Your task to perform on an android device: turn notification dots on Image 0: 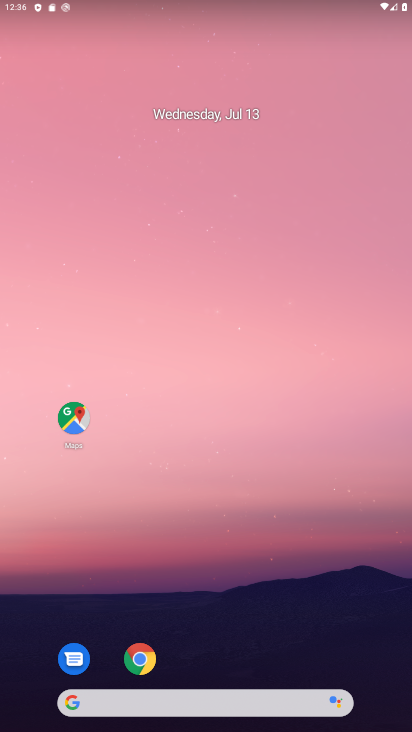
Step 0: press home button
Your task to perform on an android device: turn notification dots on Image 1: 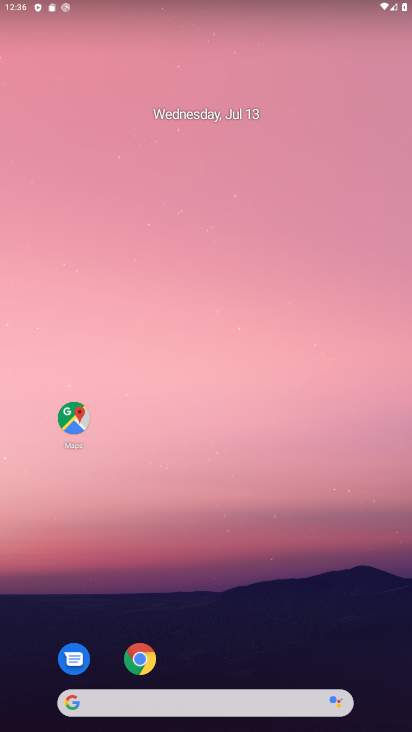
Step 1: drag from (232, 620) to (409, 160)
Your task to perform on an android device: turn notification dots on Image 2: 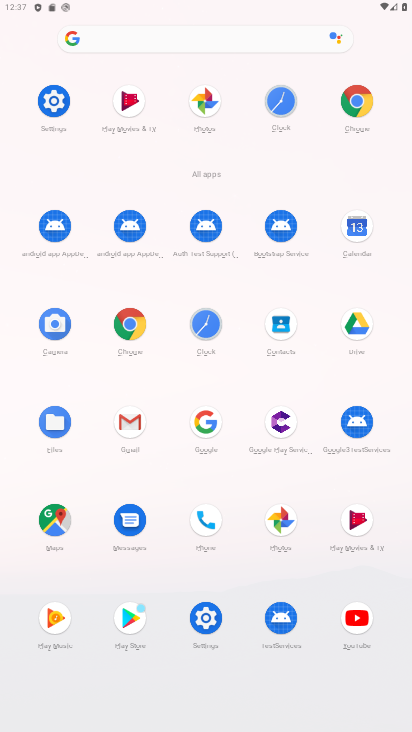
Step 2: click (196, 639)
Your task to perform on an android device: turn notification dots on Image 3: 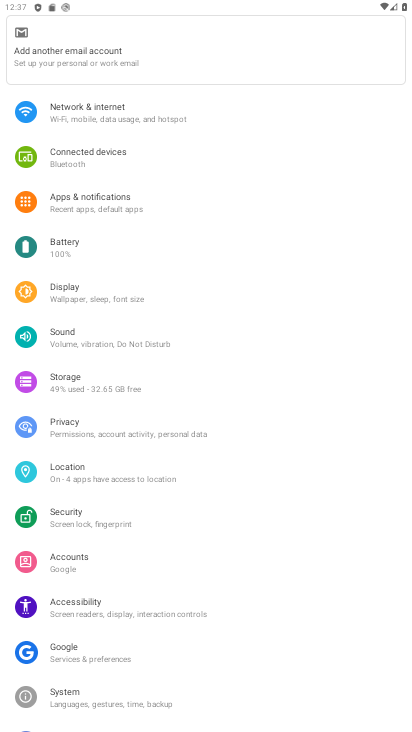
Step 3: click (150, 212)
Your task to perform on an android device: turn notification dots on Image 4: 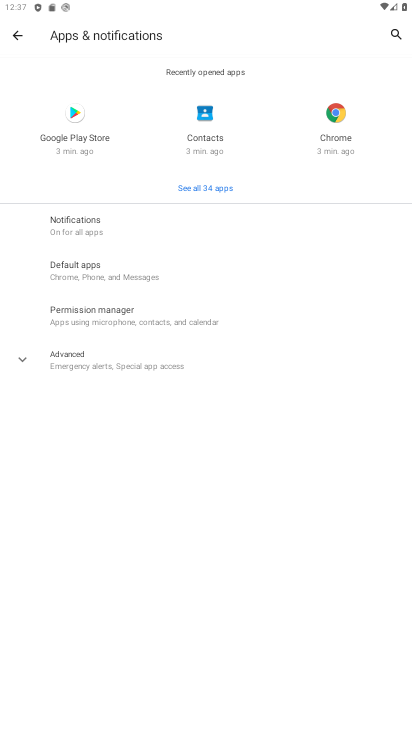
Step 4: click (110, 221)
Your task to perform on an android device: turn notification dots on Image 5: 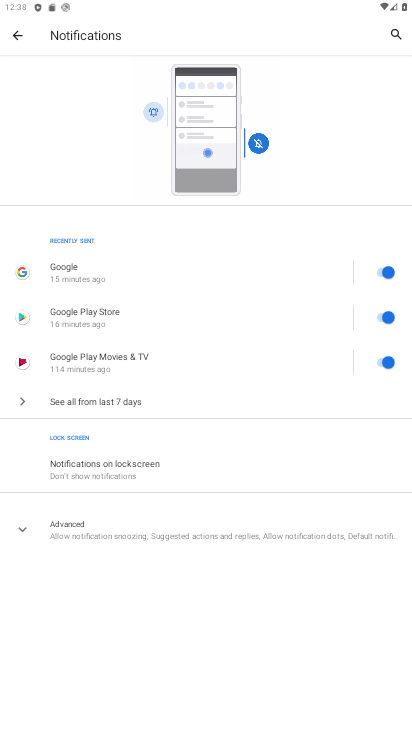
Step 5: click (98, 542)
Your task to perform on an android device: turn notification dots on Image 6: 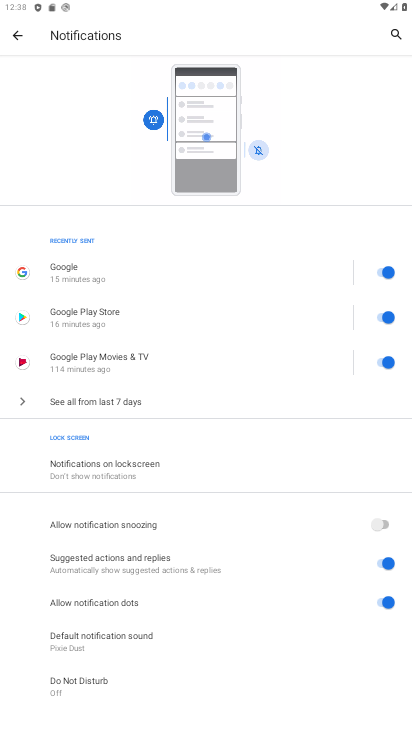
Step 6: click (97, 604)
Your task to perform on an android device: turn notification dots on Image 7: 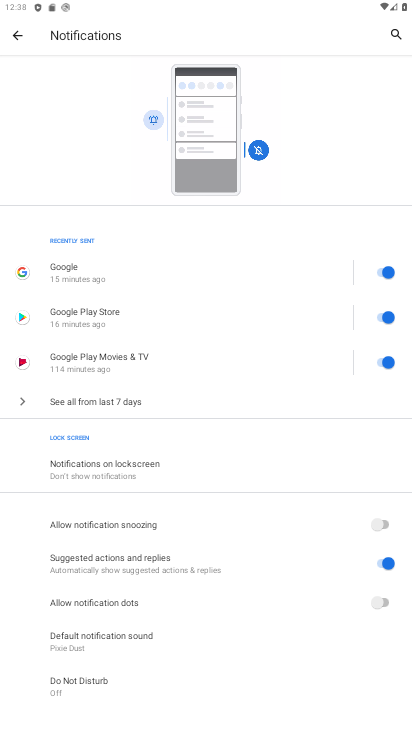
Step 7: click (97, 604)
Your task to perform on an android device: turn notification dots on Image 8: 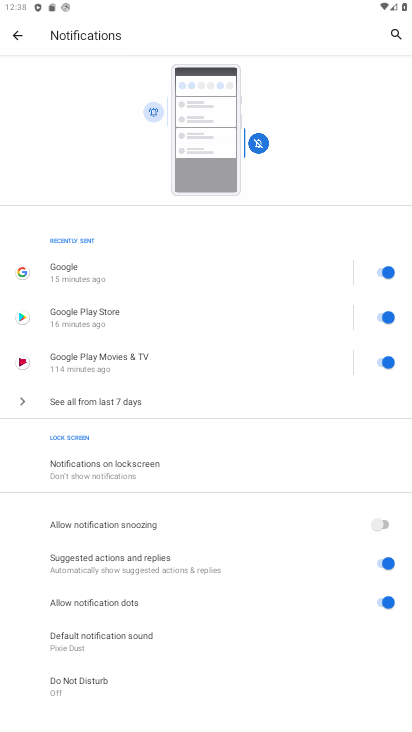
Step 8: task complete